Your task to perform on an android device: Open sound settings Image 0: 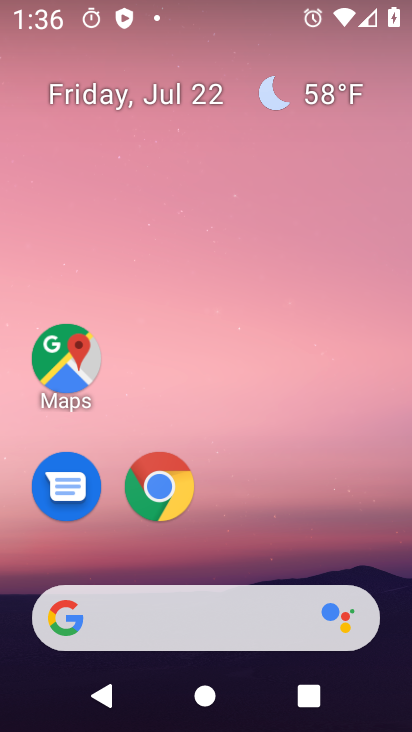
Step 0: drag from (346, 538) to (351, 95)
Your task to perform on an android device: Open sound settings Image 1: 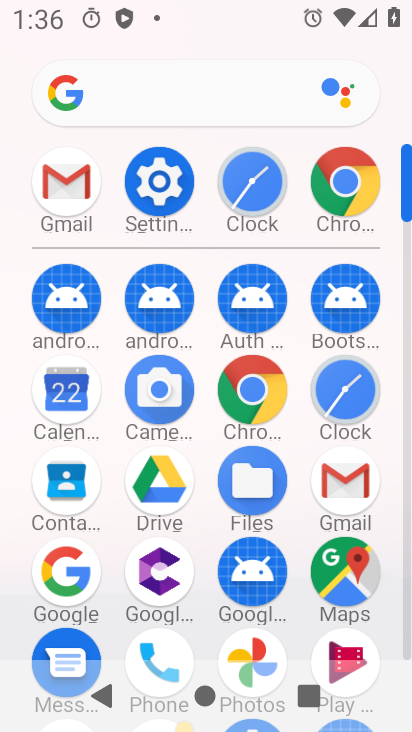
Step 1: click (172, 204)
Your task to perform on an android device: Open sound settings Image 2: 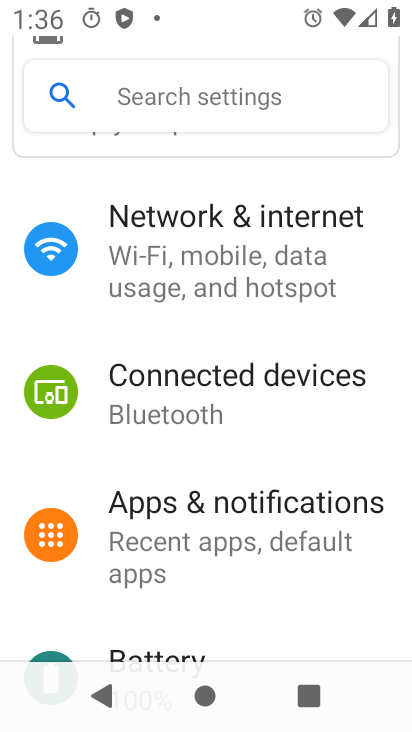
Step 2: drag from (349, 590) to (346, 476)
Your task to perform on an android device: Open sound settings Image 3: 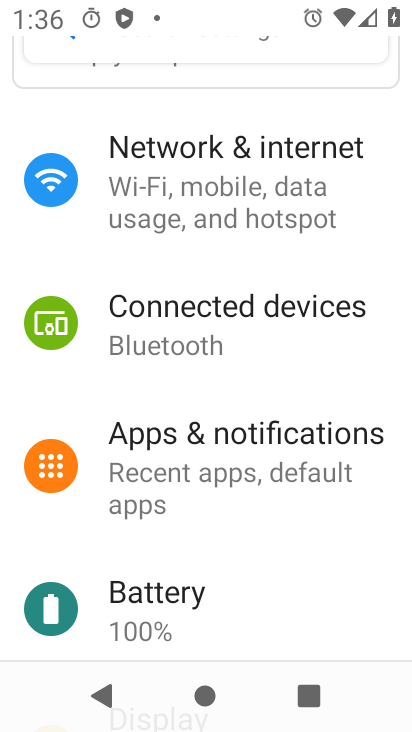
Step 3: drag from (351, 572) to (359, 467)
Your task to perform on an android device: Open sound settings Image 4: 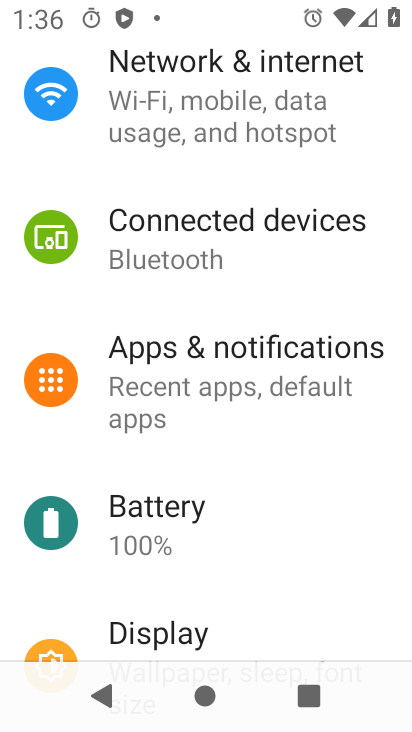
Step 4: drag from (362, 539) to (360, 360)
Your task to perform on an android device: Open sound settings Image 5: 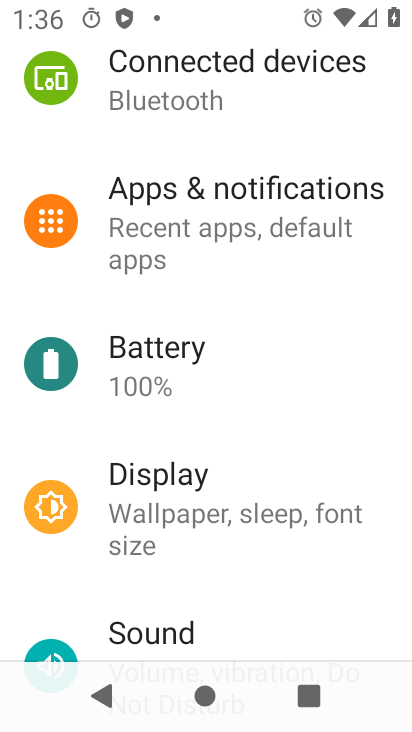
Step 5: drag from (351, 495) to (357, 416)
Your task to perform on an android device: Open sound settings Image 6: 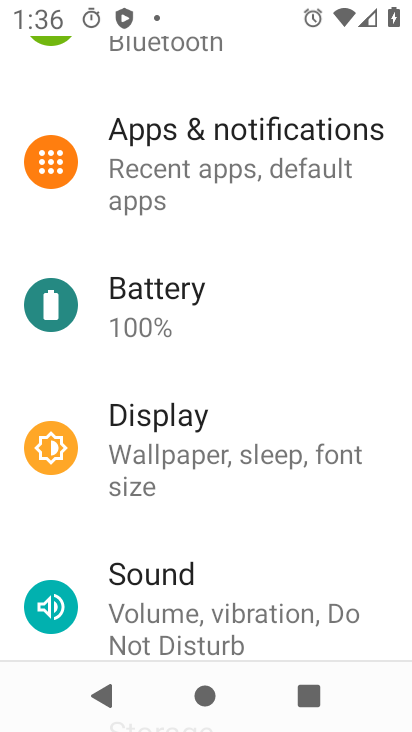
Step 6: drag from (347, 518) to (353, 438)
Your task to perform on an android device: Open sound settings Image 7: 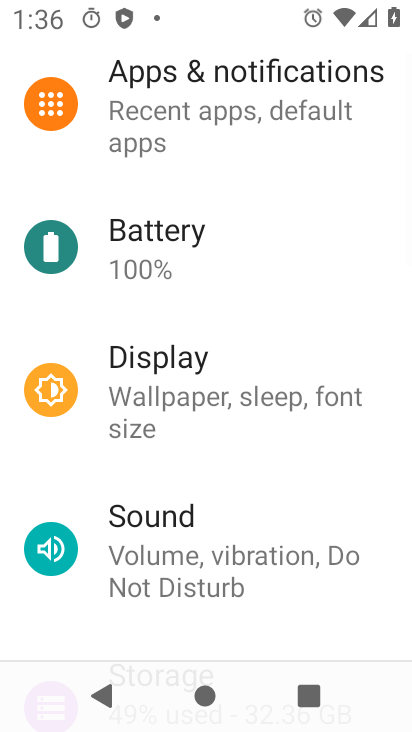
Step 7: drag from (353, 600) to (363, 475)
Your task to perform on an android device: Open sound settings Image 8: 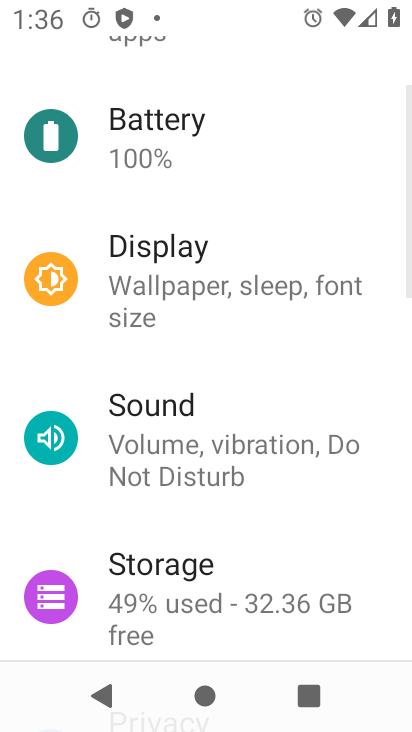
Step 8: click (353, 490)
Your task to perform on an android device: Open sound settings Image 9: 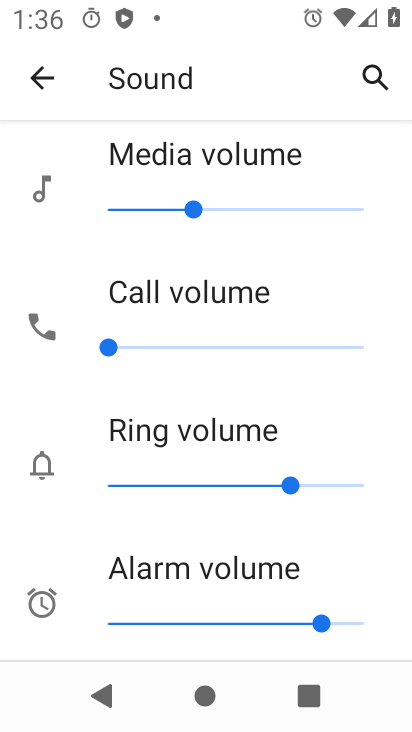
Step 9: task complete